Your task to perform on an android device: check data usage Image 0: 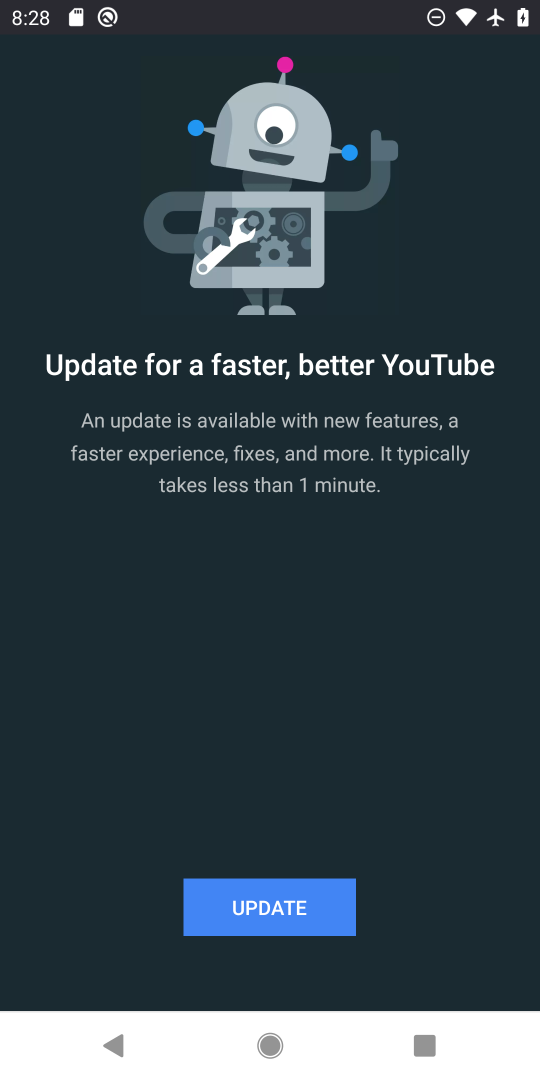
Step 0: press home button
Your task to perform on an android device: check data usage Image 1: 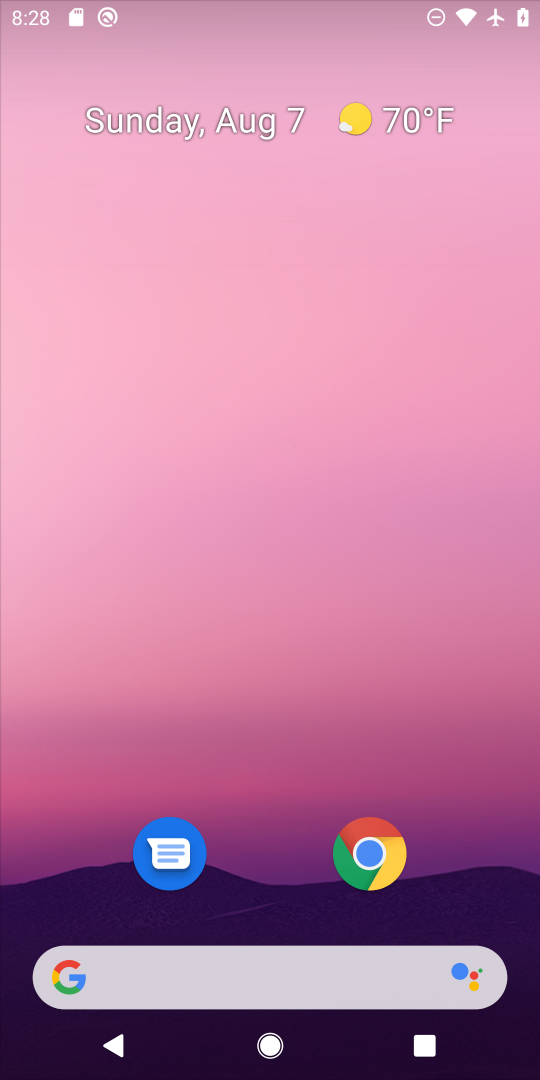
Step 1: drag from (303, 951) to (332, 109)
Your task to perform on an android device: check data usage Image 2: 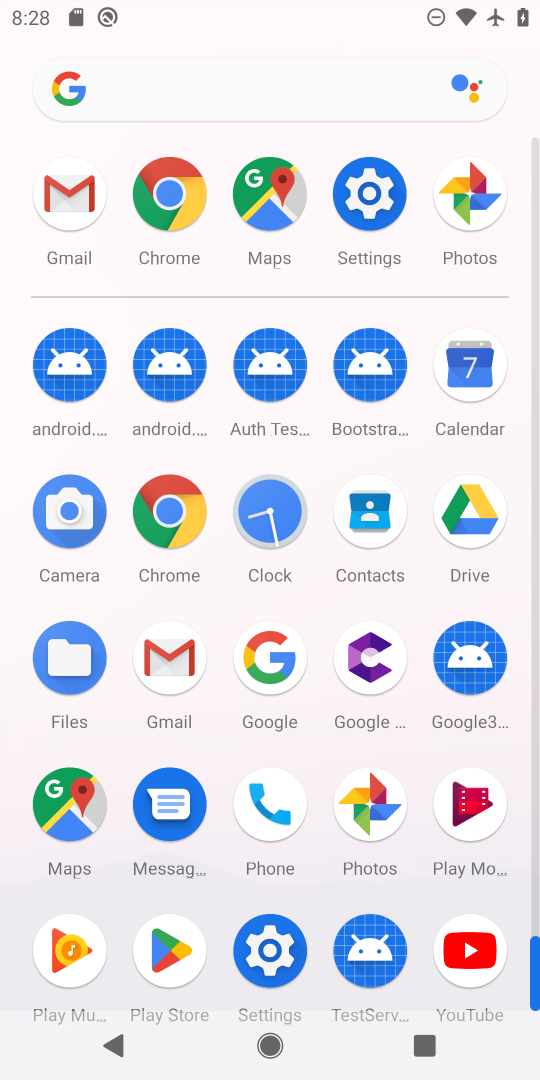
Step 2: click (370, 248)
Your task to perform on an android device: check data usage Image 3: 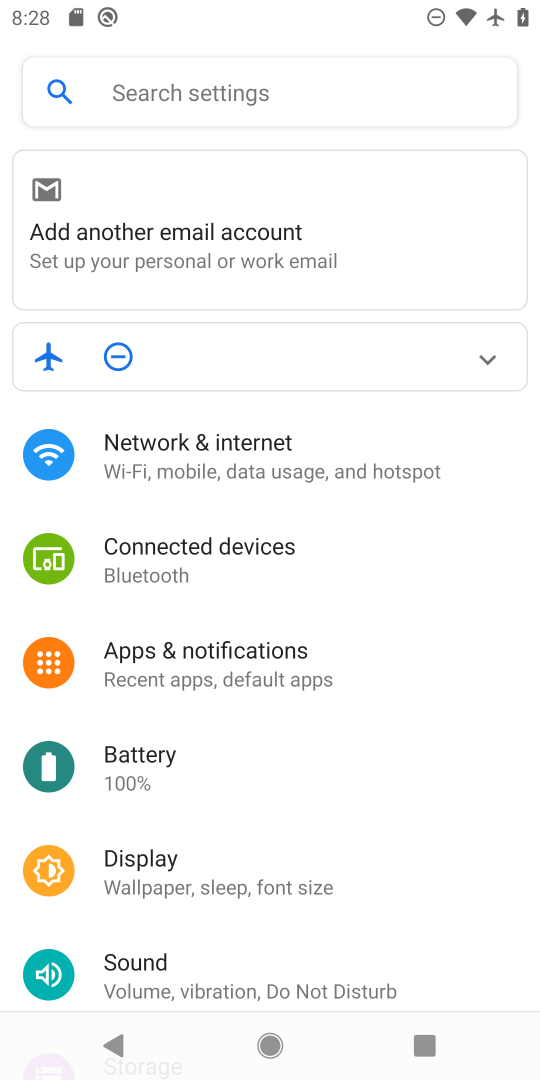
Step 3: click (250, 471)
Your task to perform on an android device: check data usage Image 4: 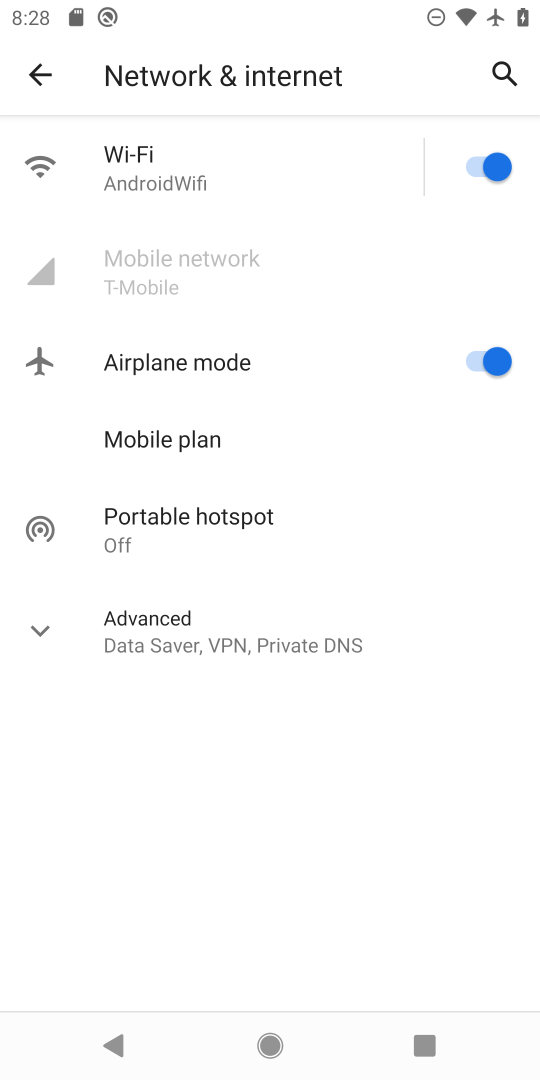
Step 4: task complete